Your task to perform on an android device: delete browsing data in the chrome app Image 0: 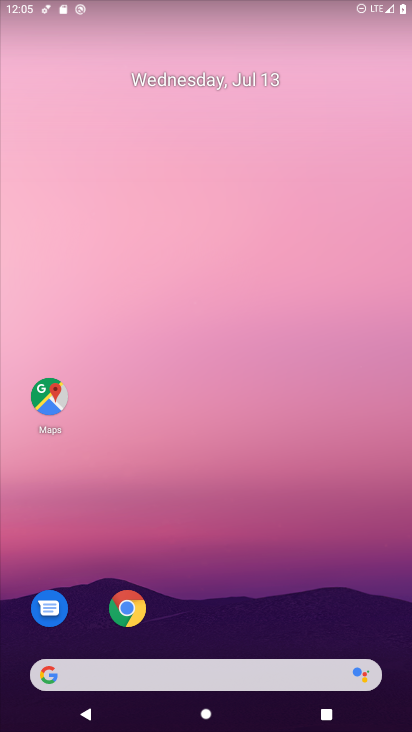
Step 0: click (143, 610)
Your task to perform on an android device: delete browsing data in the chrome app Image 1: 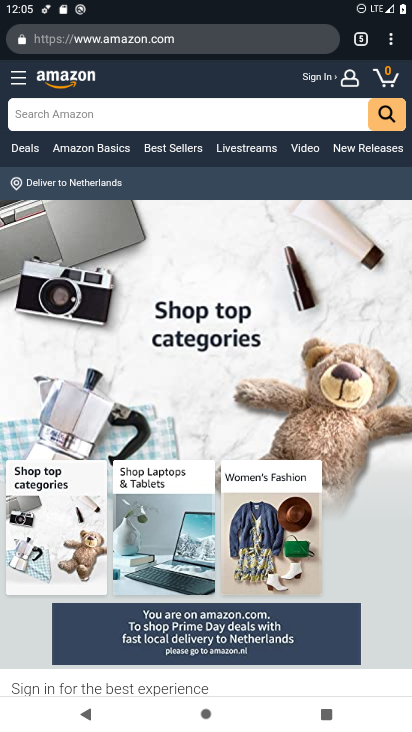
Step 1: click (399, 42)
Your task to perform on an android device: delete browsing data in the chrome app Image 2: 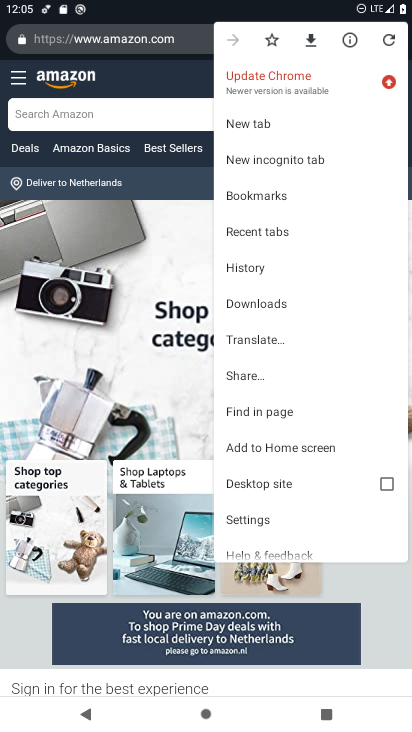
Step 2: click (260, 270)
Your task to perform on an android device: delete browsing data in the chrome app Image 3: 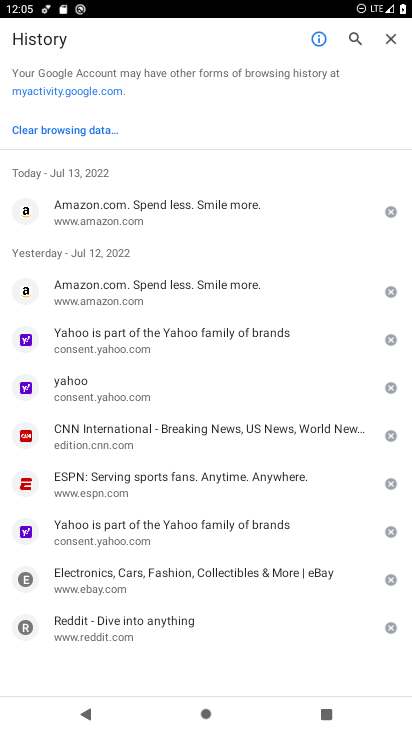
Step 3: click (51, 130)
Your task to perform on an android device: delete browsing data in the chrome app Image 4: 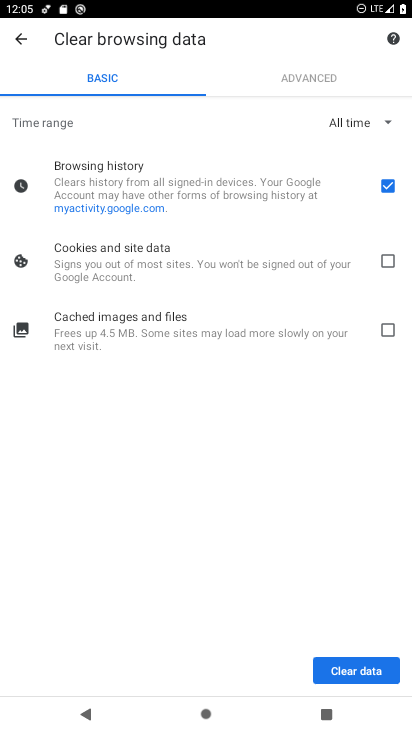
Step 4: click (365, 667)
Your task to perform on an android device: delete browsing data in the chrome app Image 5: 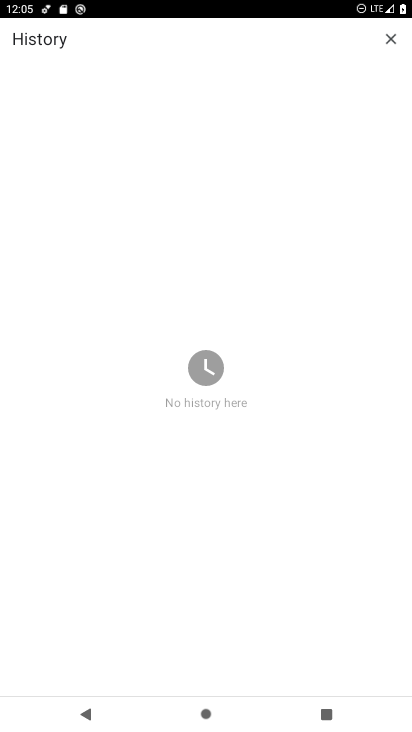
Step 5: task complete